Your task to perform on an android device: When is my next meeting? Image 0: 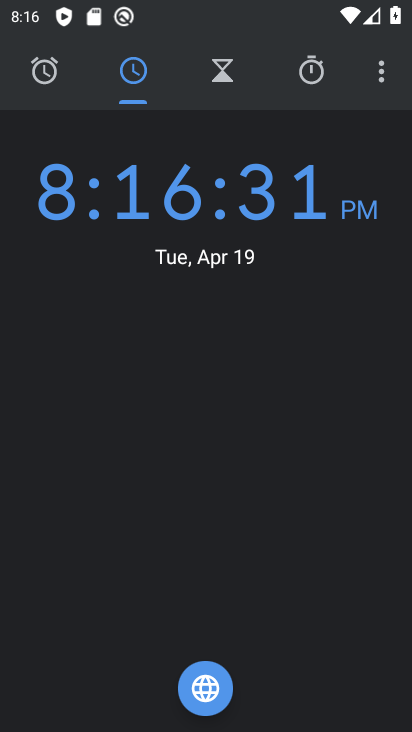
Step 0: press home button
Your task to perform on an android device: When is my next meeting? Image 1: 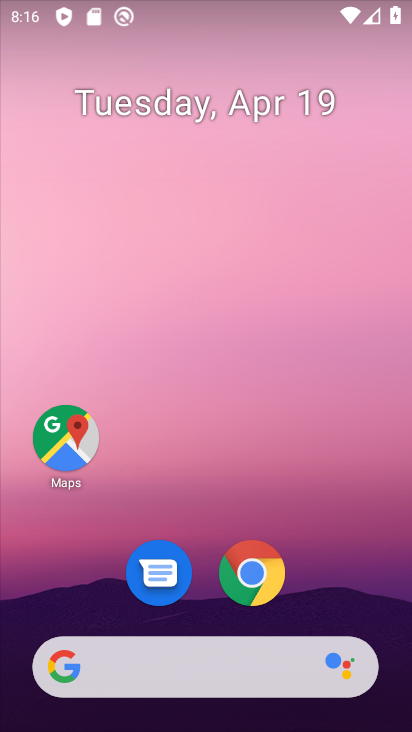
Step 1: drag from (370, 395) to (347, 37)
Your task to perform on an android device: When is my next meeting? Image 2: 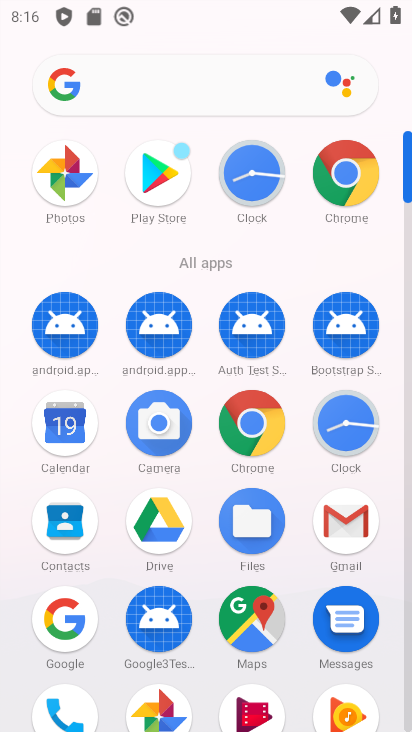
Step 2: click (49, 424)
Your task to perform on an android device: When is my next meeting? Image 3: 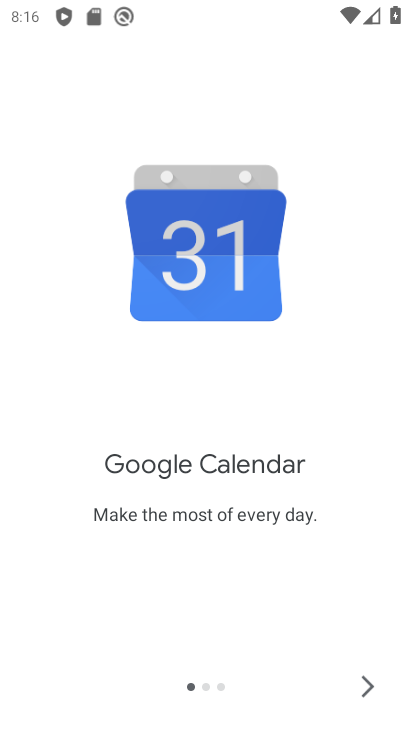
Step 3: click (364, 678)
Your task to perform on an android device: When is my next meeting? Image 4: 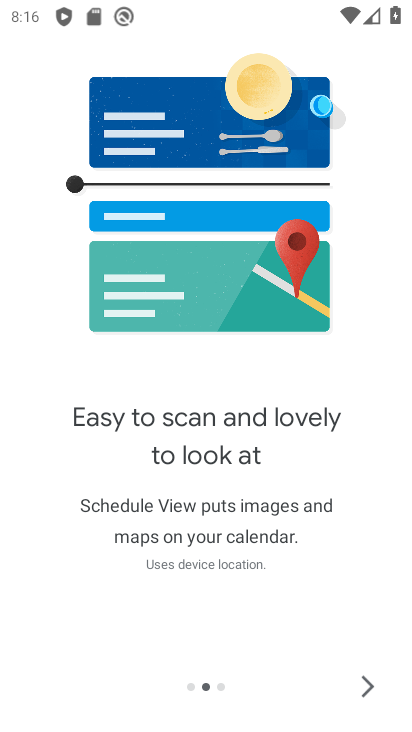
Step 4: click (367, 676)
Your task to perform on an android device: When is my next meeting? Image 5: 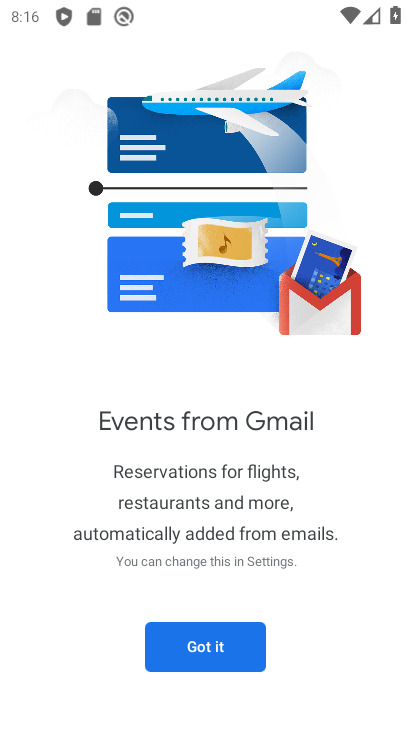
Step 5: click (238, 636)
Your task to perform on an android device: When is my next meeting? Image 6: 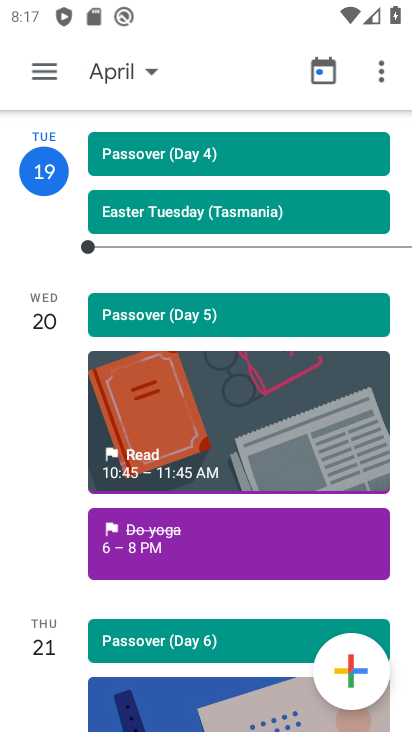
Step 6: click (43, 69)
Your task to perform on an android device: When is my next meeting? Image 7: 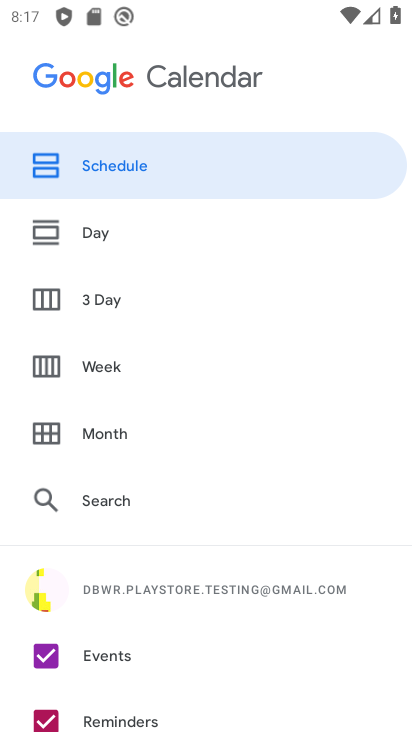
Step 7: click (226, 631)
Your task to perform on an android device: When is my next meeting? Image 8: 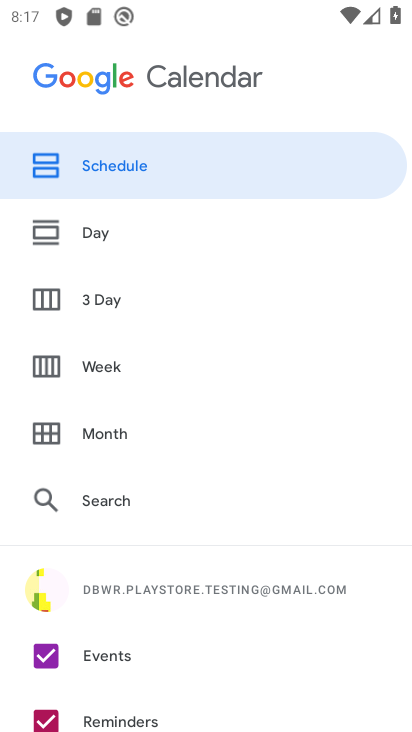
Step 8: click (192, 164)
Your task to perform on an android device: When is my next meeting? Image 9: 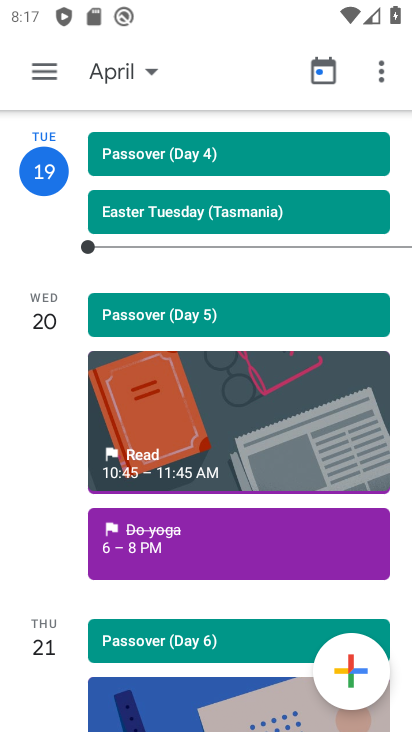
Step 9: task complete